Your task to perform on an android device: Open location settings Image 0: 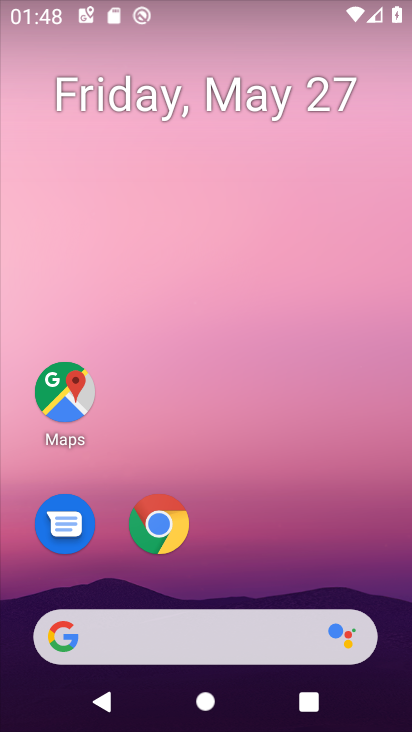
Step 0: drag from (251, 564) to (273, 22)
Your task to perform on an android device: Open location settings Image 1: 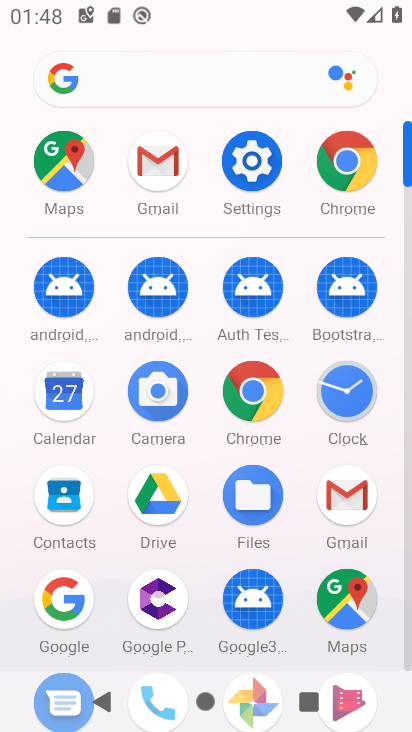
Step 1: click (251, 156)
Your task to perform on an android device: Open location settings Image 2: 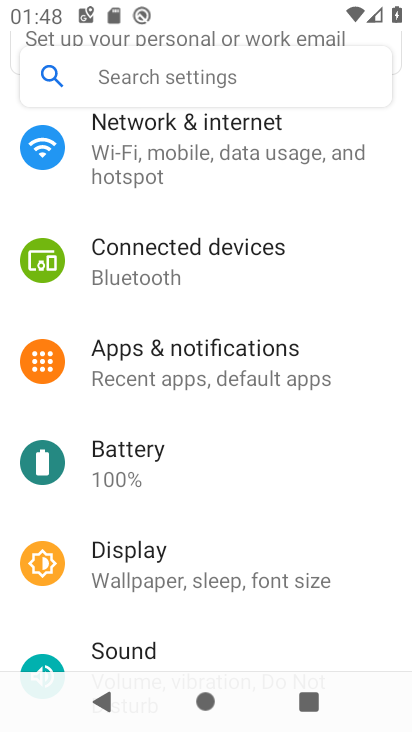
Step 2: drag from (246, 519) to (253, 130)
Your task to perform on an android device: Open location settings Image 3: 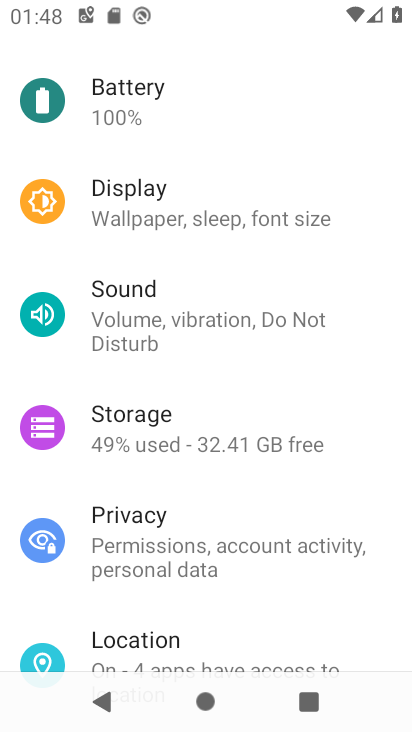
Step 3: drag from (225, 384) to (241, 154)
Your task to perform on an android device: Open location settings Image 4: 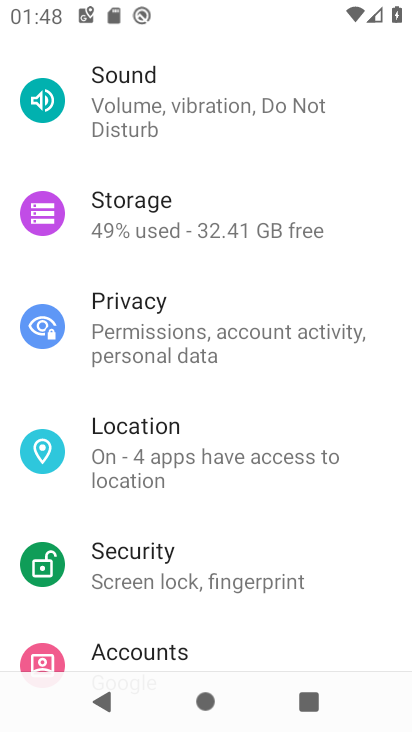
Step 4: click (209, 449)
Your task to perform on an android device: Open location settings Image 5: 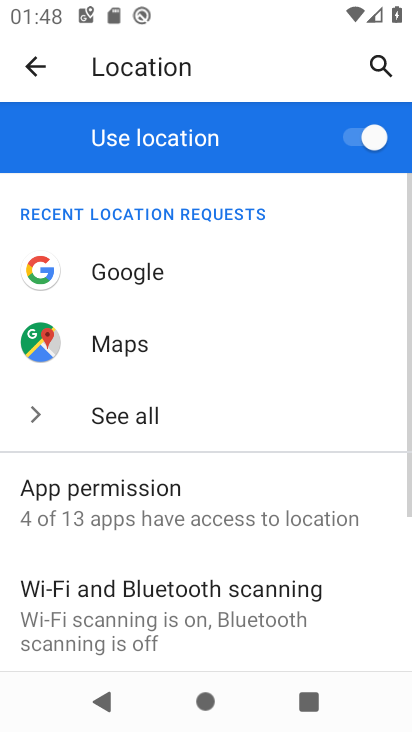
Step 5: task complete